Your task to perform on an android device: Do I have any events today? Image 0: 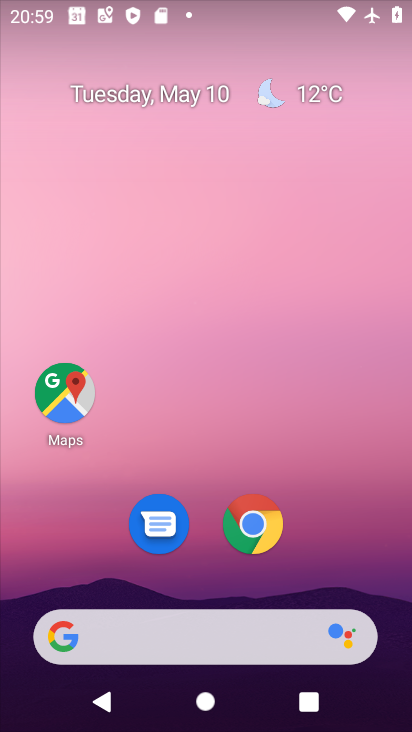
Step 0: drag from (337, 544) to (354, 34)
Your task to perform on an android device: Do I have any events today? Image 1: 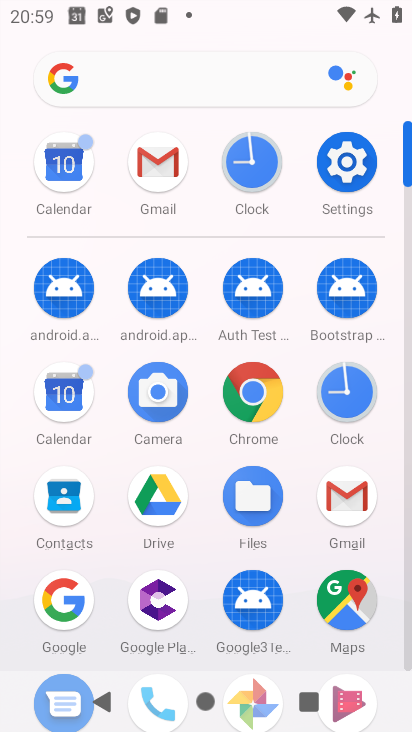
Step 1: click (69, 159)
Your task to perform on an android device: Do I have any events today? Image 2: 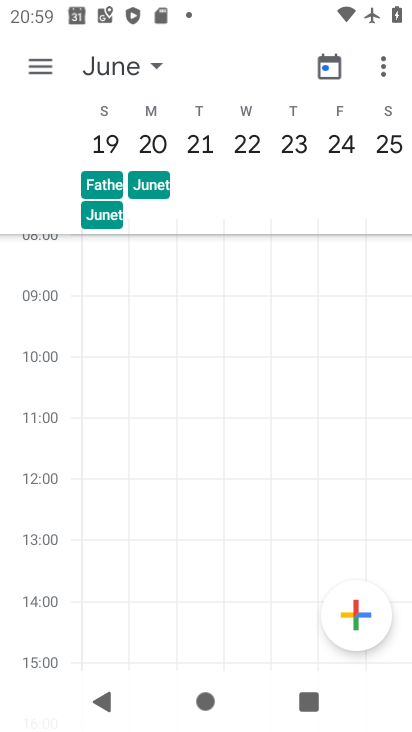
Step 2: click (45, 64)
Your task to perform on an android device: Do I have any events today? Image 3: 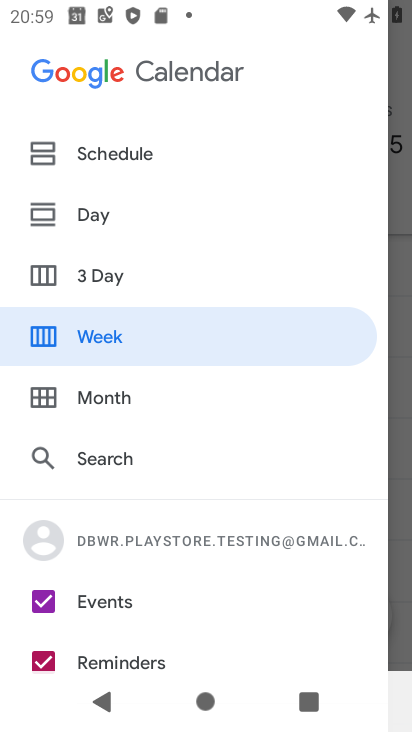
Step 3: click (92, 386)
Your task to perform on an android device: Do I have any events today? Image 4: 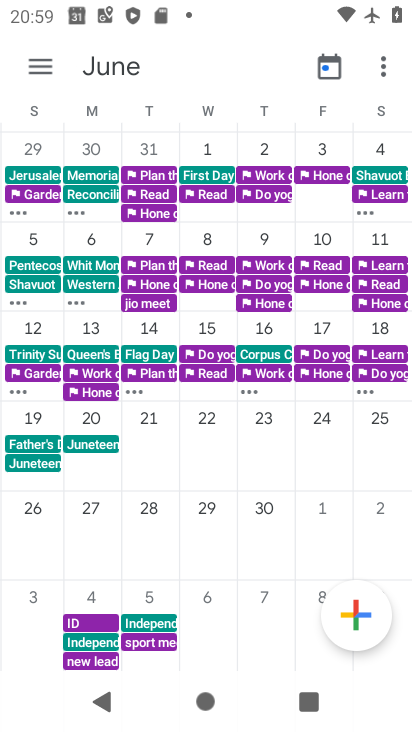
Step 4: drag from (15, 292) to (411, 347)
Your task to perform on an android device: Do I have any events today? Image 5: 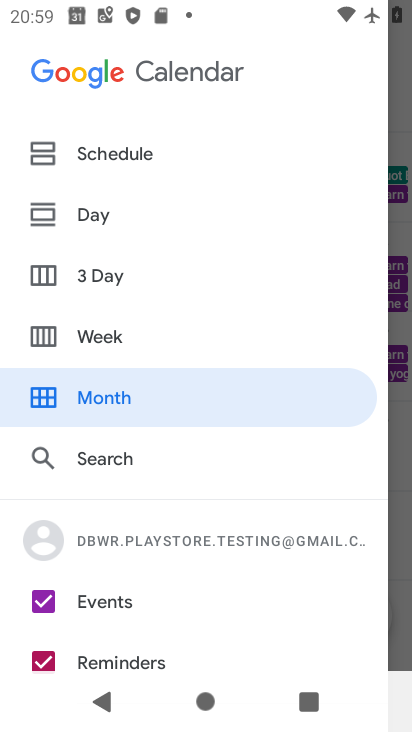
Step 5: click (393, 368)
Your task to perform on an android device: Do I have any events today? Image 6: 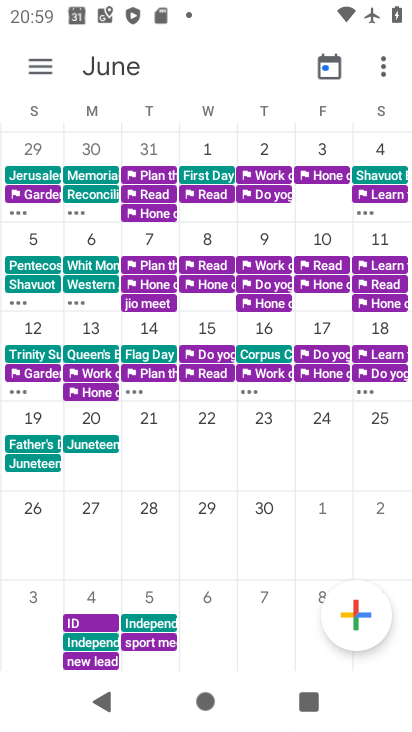
Step 6: drag from (52, 312) to (403, 335)
Your task to perform on an android device: Do I have any events today? Image 7: 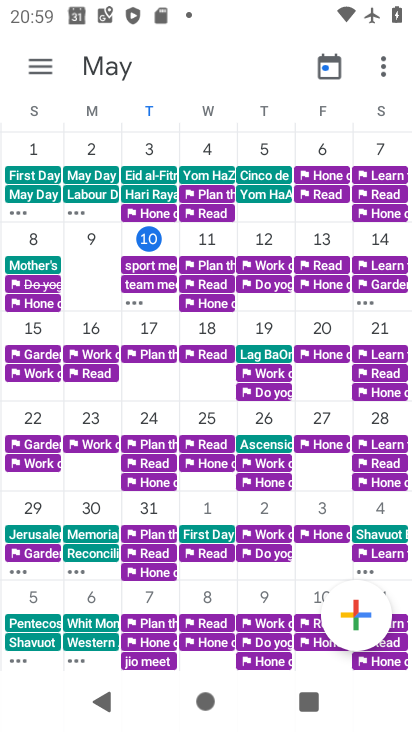
Step 7: click (153, 252)
Your task to perform on an android device: Do I have any events today? Image 8: 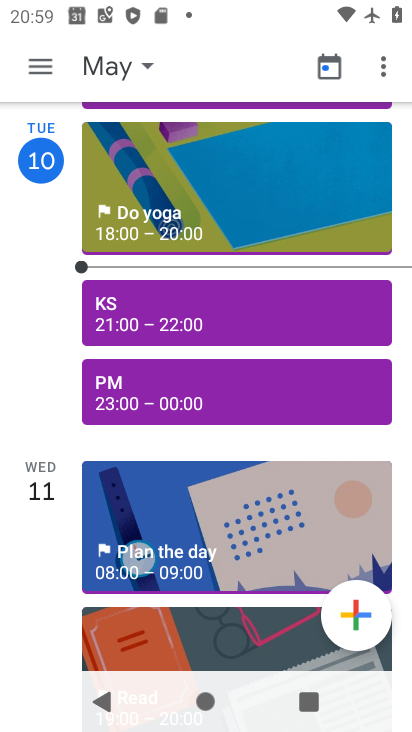
Step 8: click (289, 312)
Your task to perform on an android device: Do I have any events today? Image 9: 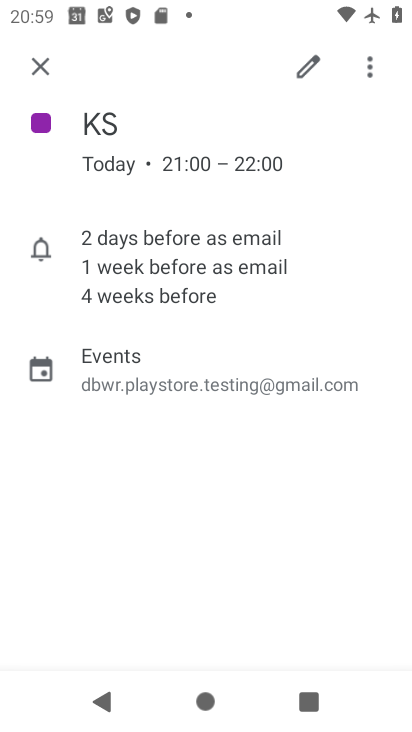
Step 9: task complete